Your task to perform on an android device: Open ESPN.com Image 0: 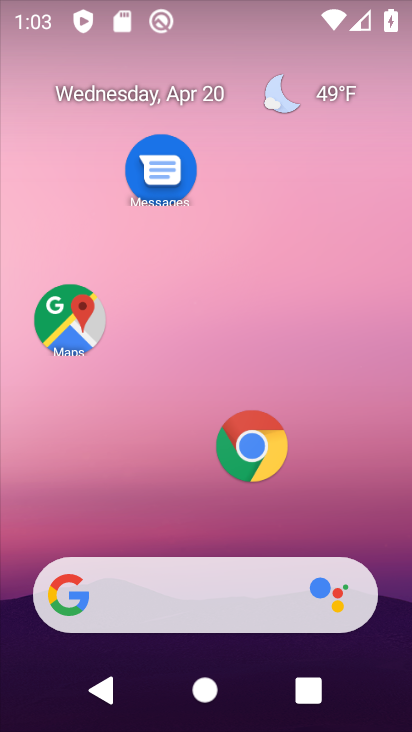
Step 0: drag from (201, 532) to (236, 46)
Your task to perform on an android device: Open ESPN.com Image 1: 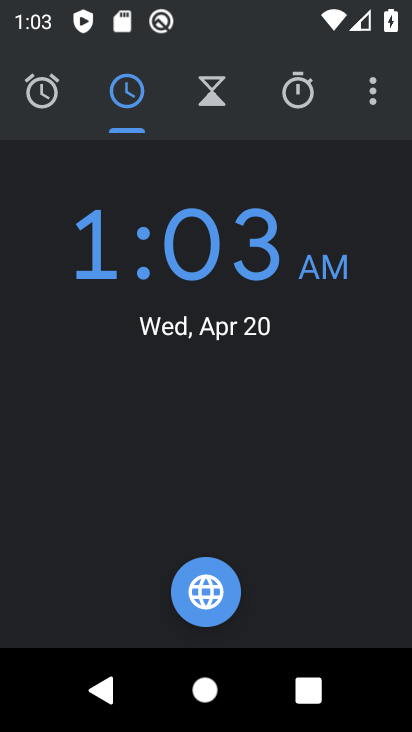
Step 1: press home button
Your task to perform on an android device: Open ESPN.com Image 2: 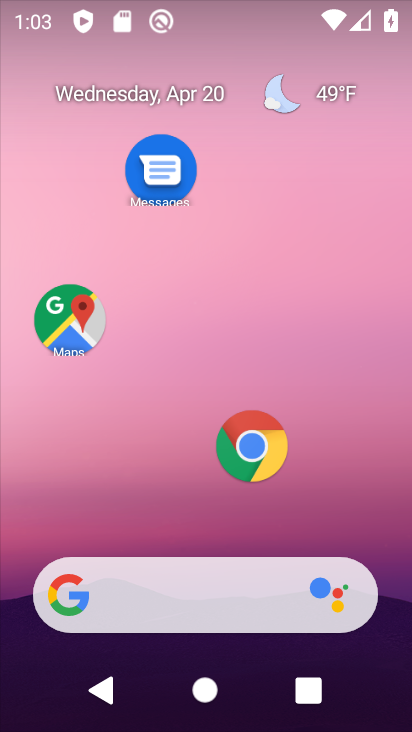
Step 2: click (250, 439)
Your task to perform on an android device: Open ESPN.com Image 3: 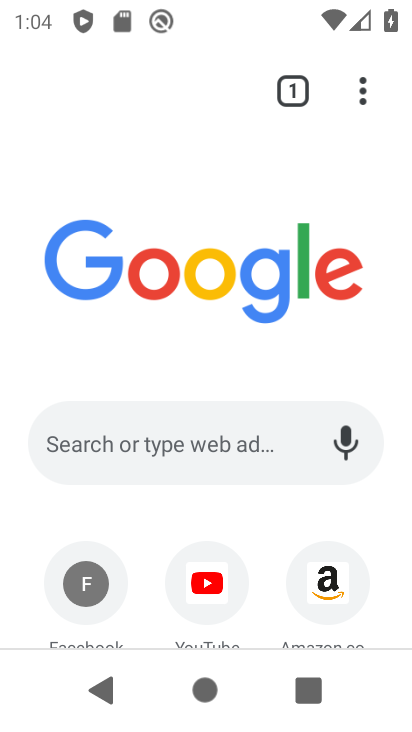
Step 3: click (145, 432)
Your task to perform on an android device: Open ESPN.com Image 4: 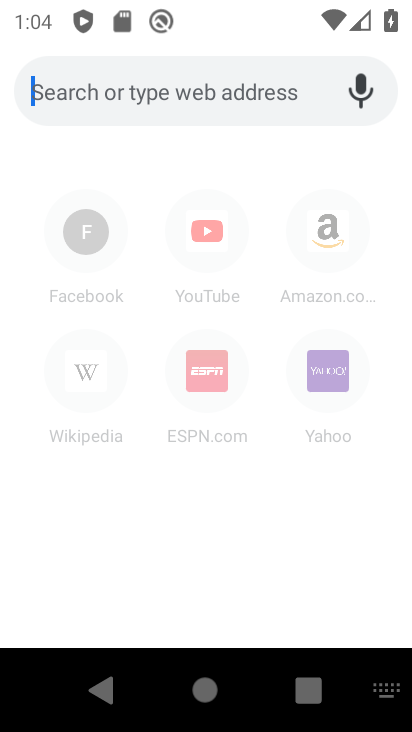
Step 4: type "espn.com"
Your task to perform on an android device: Open ESPN.com Image 5: 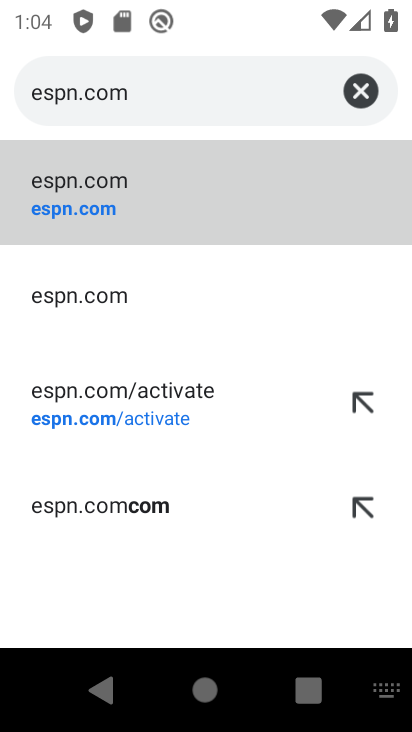
Step 5: click (129, 200)
Your task to perform on an android device: Open ESPN.com Image 6: 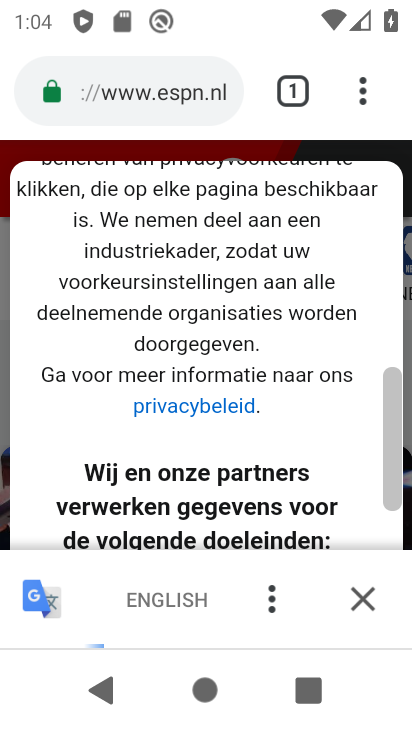
Step 6: click (360, 604)
Your task to perform on an android device: Open ESPN.com Image 7: 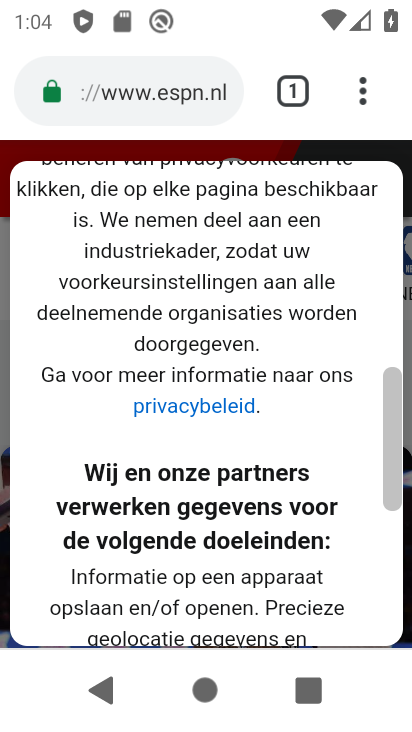
Step 7: drag from (231, 580) to (228, 186)
Your task to perform on an android device: Open ESPN.com Image 8: 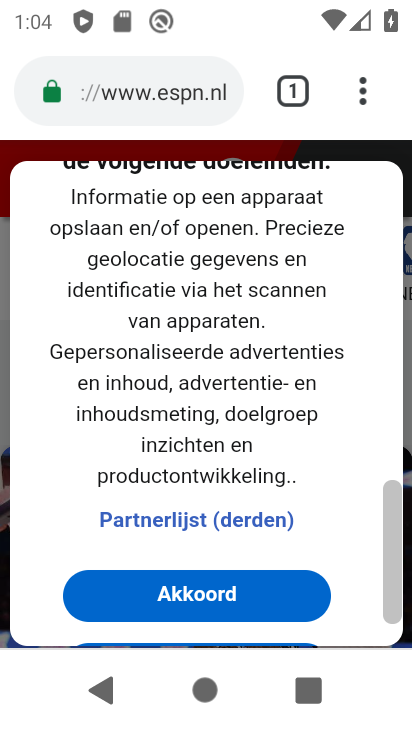
Step 8: click (196, 592)
Your task to perform on an android device: Open ESPN.com Image 9: 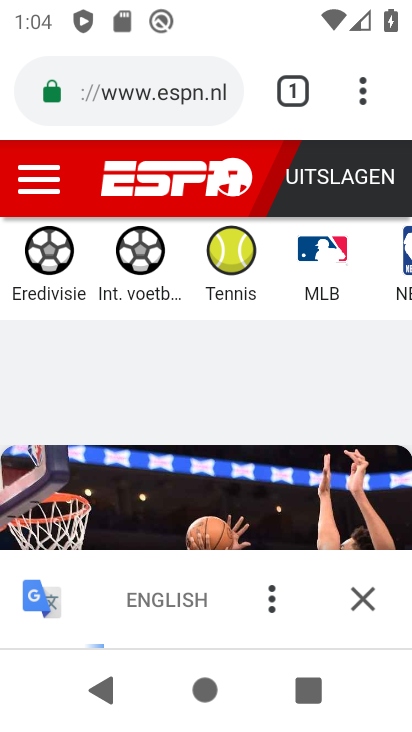
Step 9: click (359, 600)
Your task to perform on an android device: Open ESPN.com Image 10: 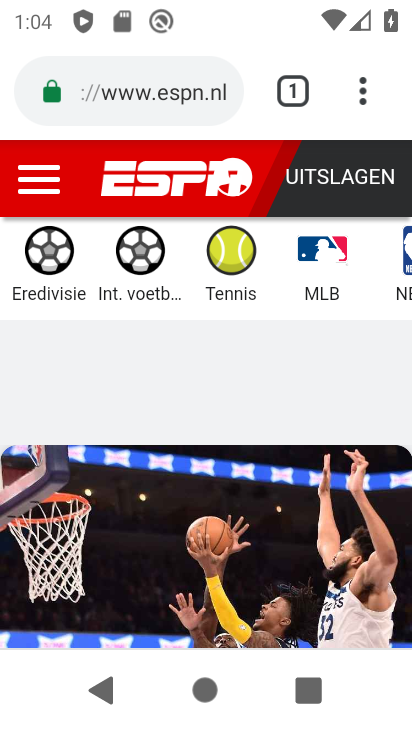
Step 10: task complete